Your task to perform on an android device: turn on wifi Image 0: 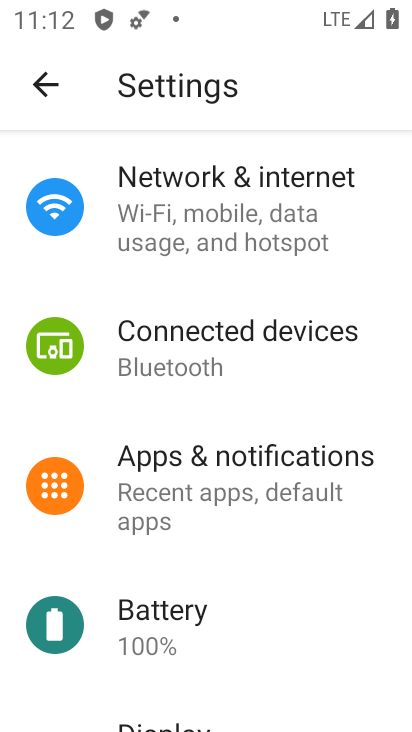
Step 0: click (238, 248)
Your task to perform on an android device: turn on wifi Image 1: 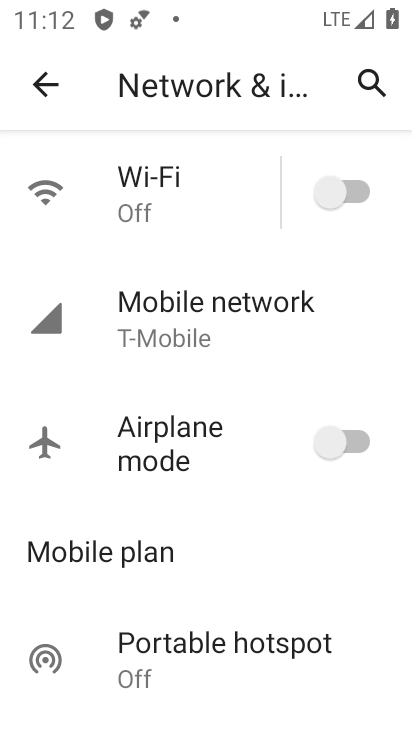
Step 1: click (367, 181)
Your task to perform on an android device: turn on wifi Image 2: 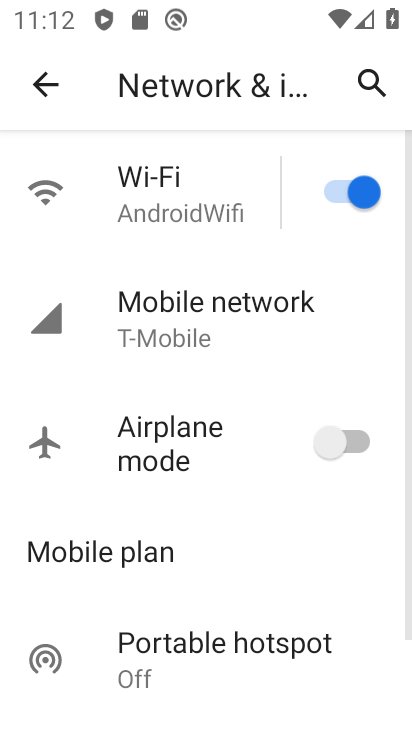
Step 2: task complete